Your task to perform on an android device: Go to sound settings Image 0: 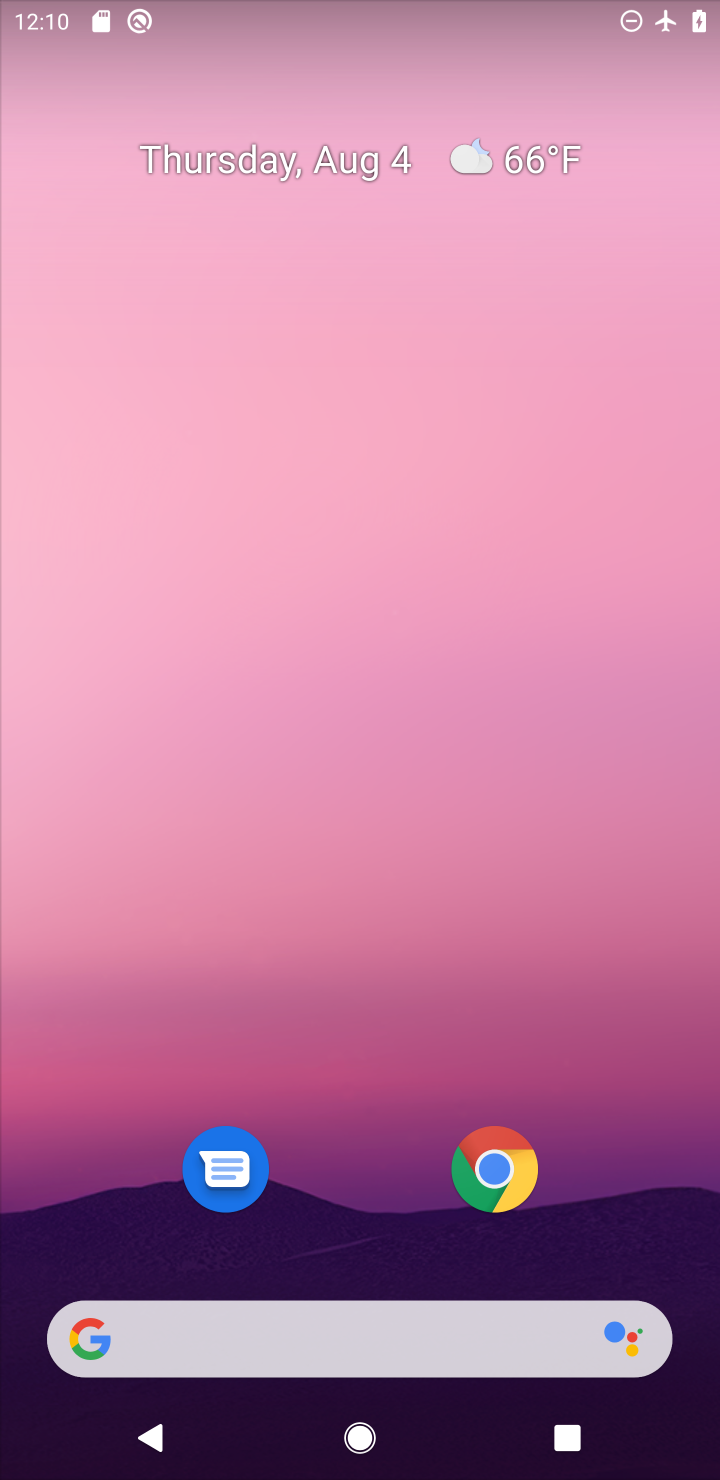
Step 0: drag from (603, 1174) to (658, 25)
Your task to perform on an android device: Go to sound settings Image 1: 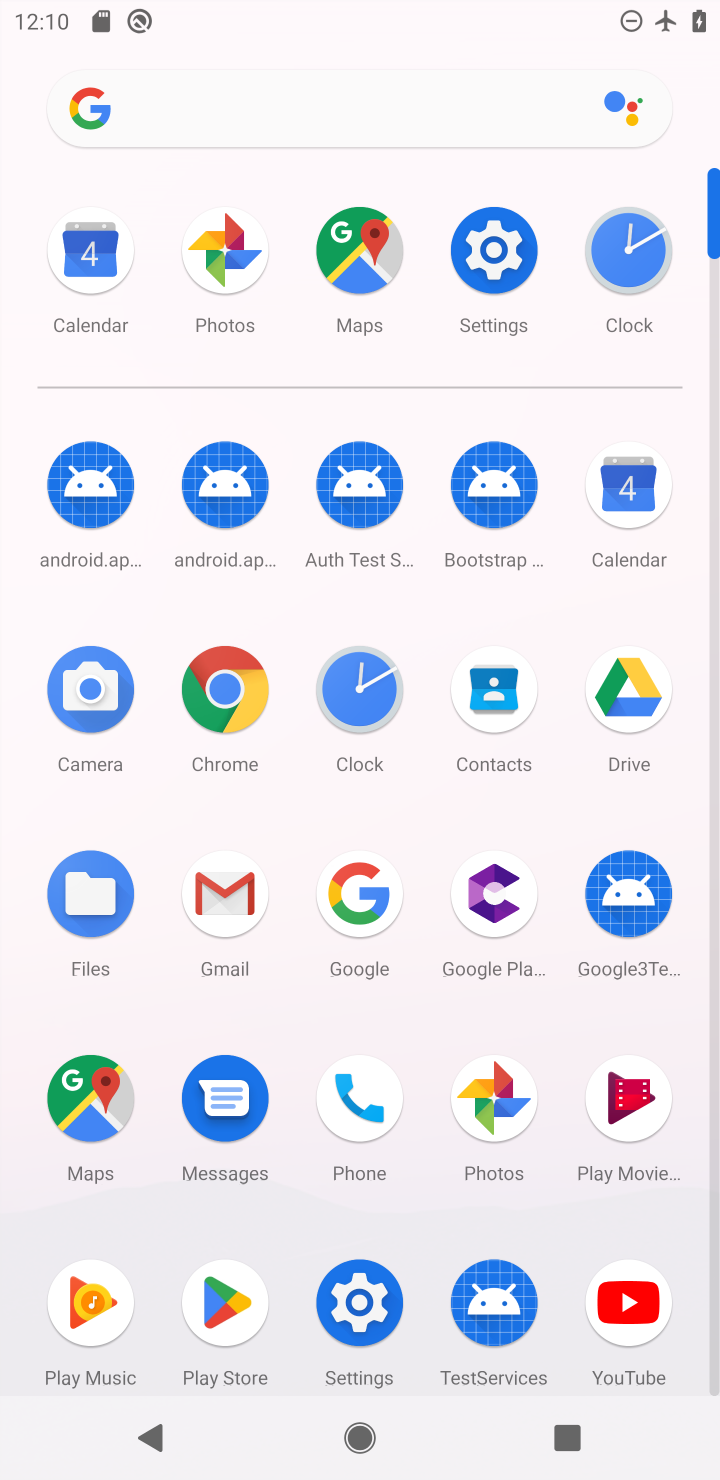
Step 1: click (497, 261)
Your task to perform on an android device: Go to sound settings Image 2: 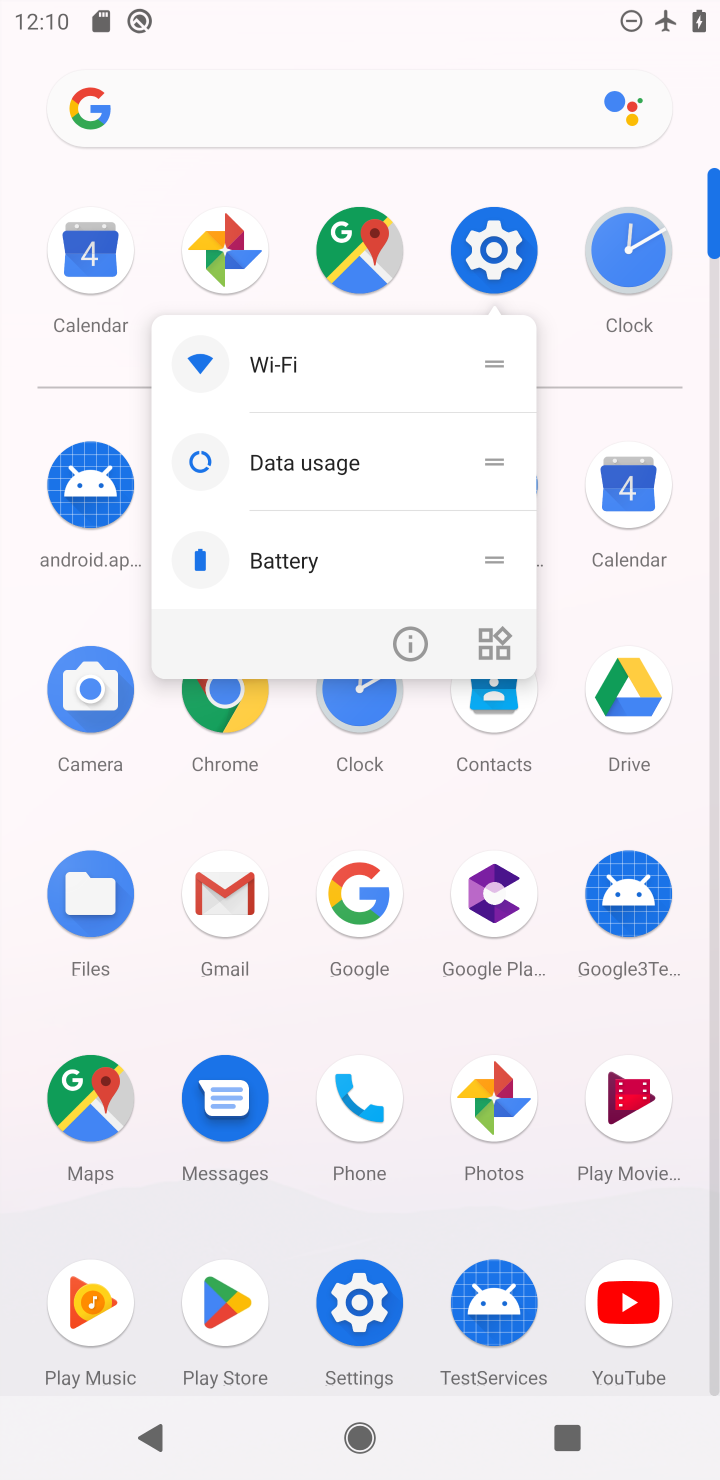
Step 2: click (497, 261)
Your task to perform on an android device: Go to sound settings Image 3: 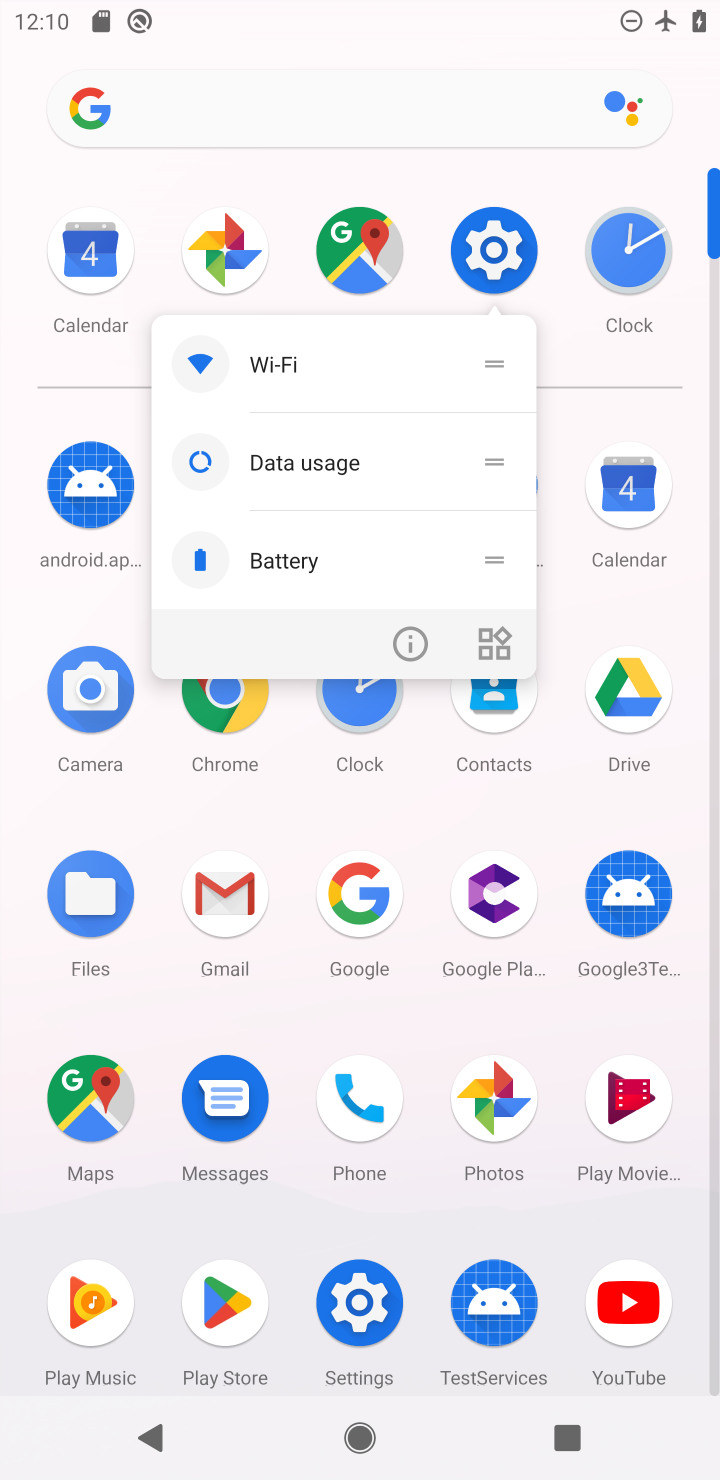
Step 3: click (497, 261)
Your task to perform on an android device: Go to sound settings Image 4: 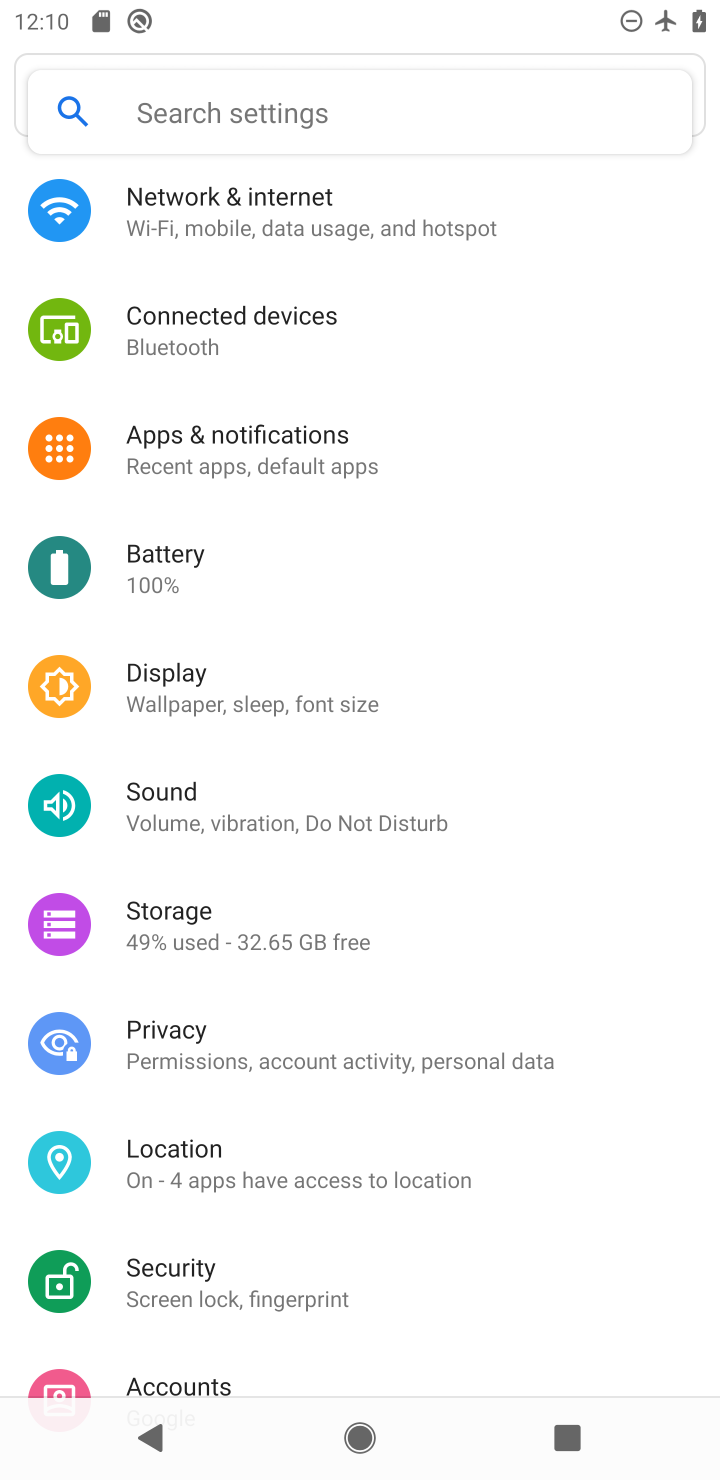
Step 4: click (182, 814)
Your task to perform on an android device: Go to sound settings Image 5: 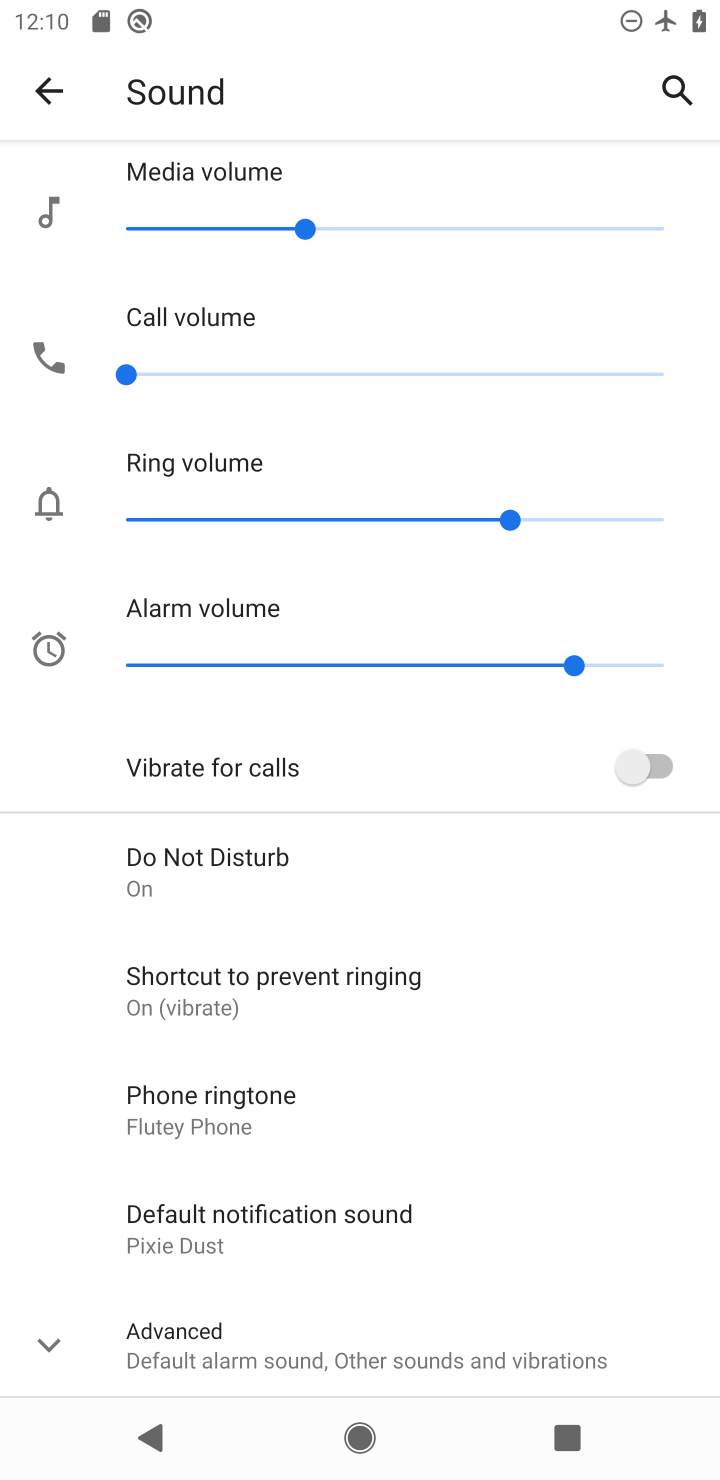
Step 5: task complete